Your task to perform on an android device: Check the news Image 0: 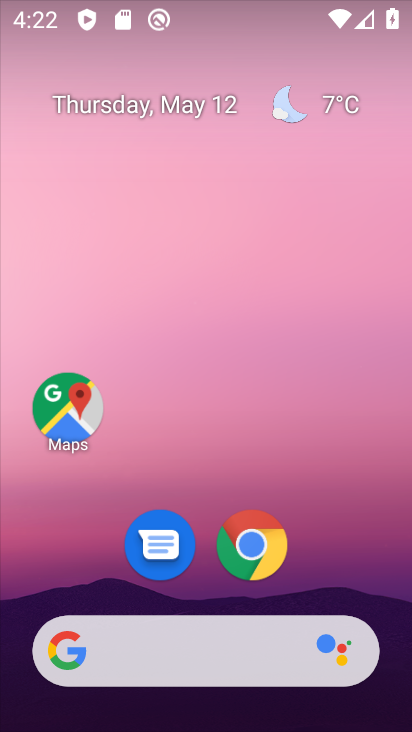
Step 0: click (243, 546)
Your task to perform on an android device: Check the news Image 1: 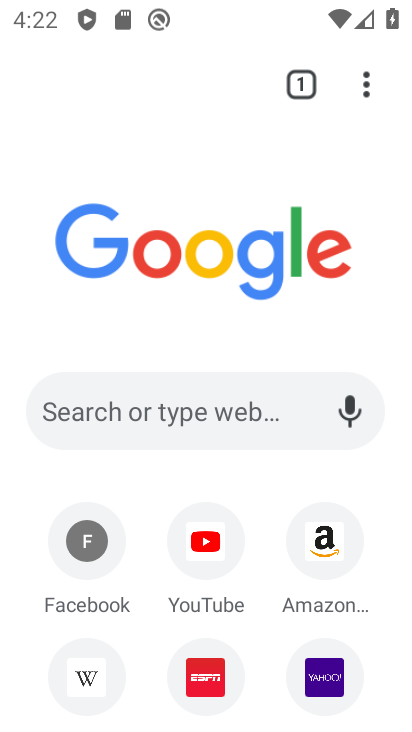
Step 1: click (223, 429)
Your task to perform on an android device: Check the news Image 2: 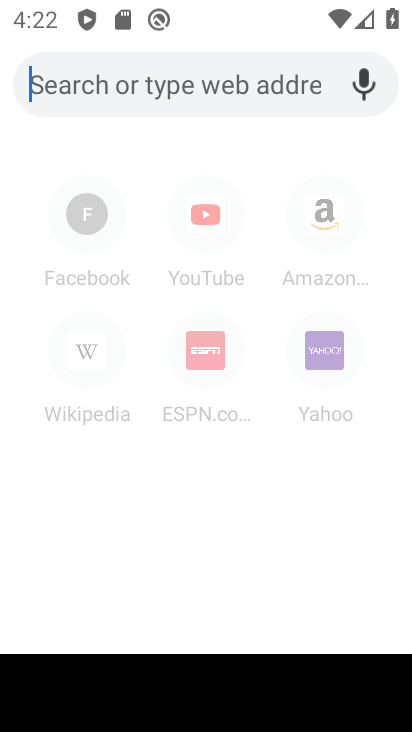
Step 2: type "news"
Your task to perform on an android device: Check the news Image 3: 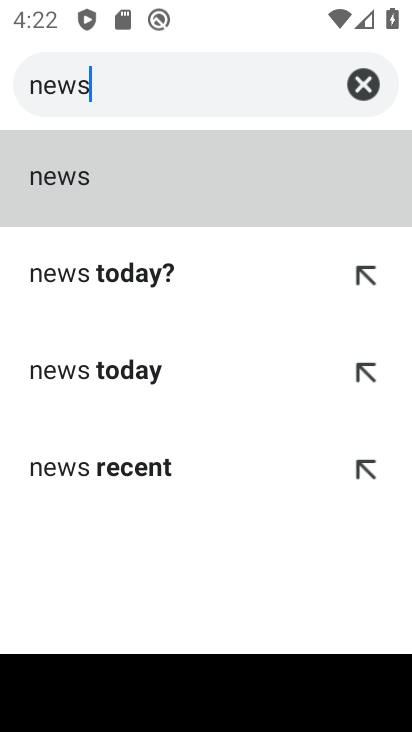
Step 3: click (92, 176)
Your task to perform on an android device: Check the news Image 4: 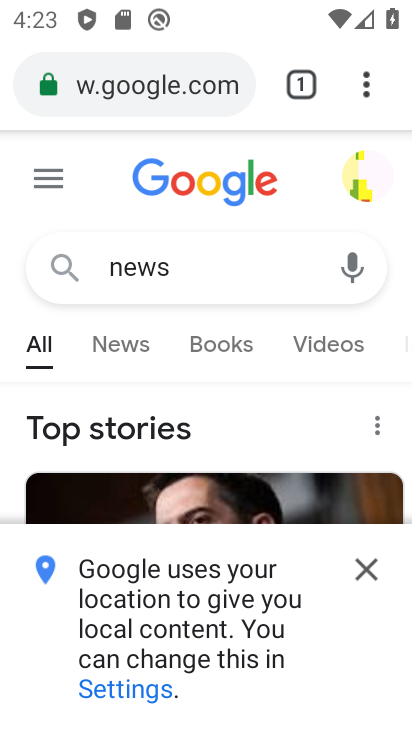
Step 4: click (127, 346)
Your task to perform on an android device: Check the news Image 5: 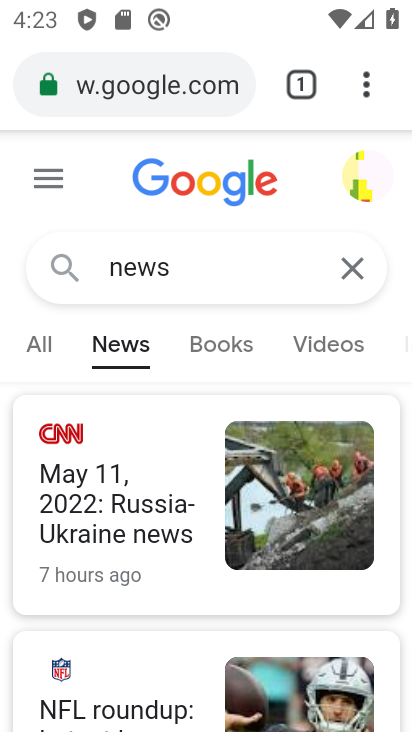
Step 5: task complete